Your task to perform on an android device: Open privacy settings Image 0: 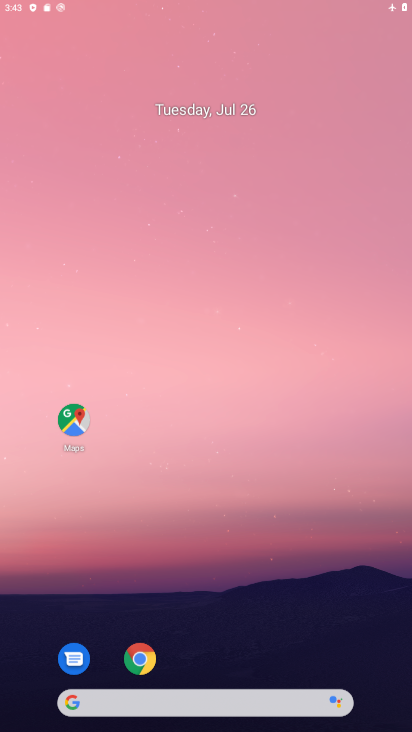
Step 0: click (158, 57)
Your task to perform on an android device: Open privacy settings Image 1: 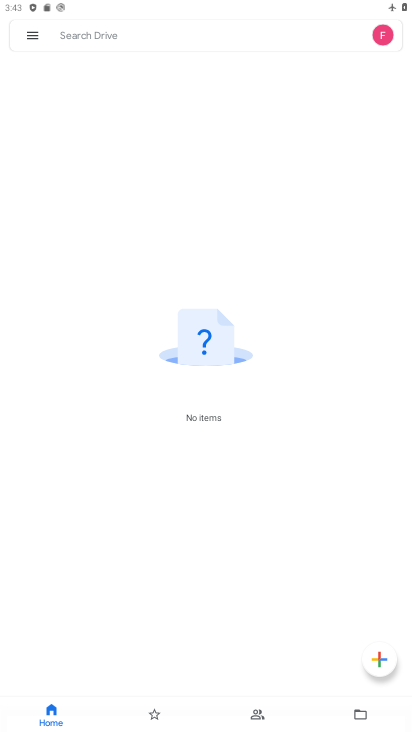
Step 1: press home button
Your task to perform on an android device: Open privacy settings Image 2: 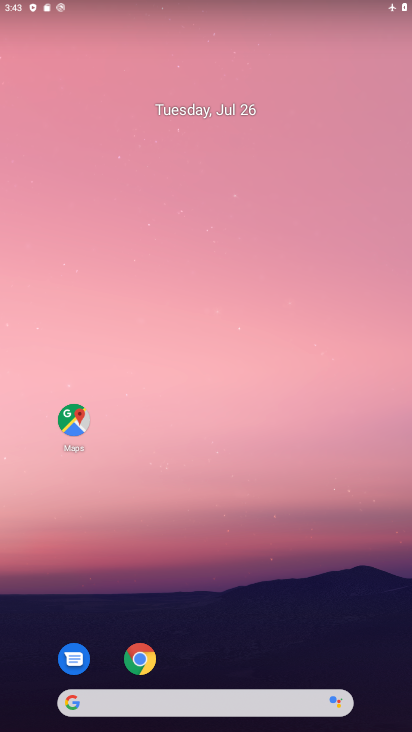
Step 2: drag from (270, 578) to (313, 6)
Your task to perform on an android device: Open privacy settings Image 3: 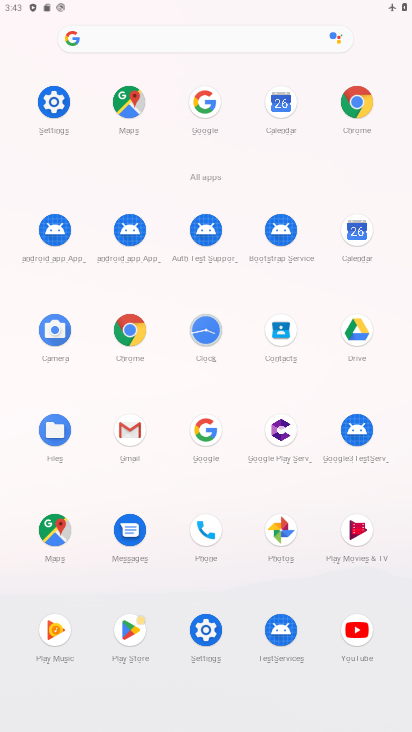
Step 3: click (63, 97)
Your task to perform on an android device: Open privacy settings Image 4: 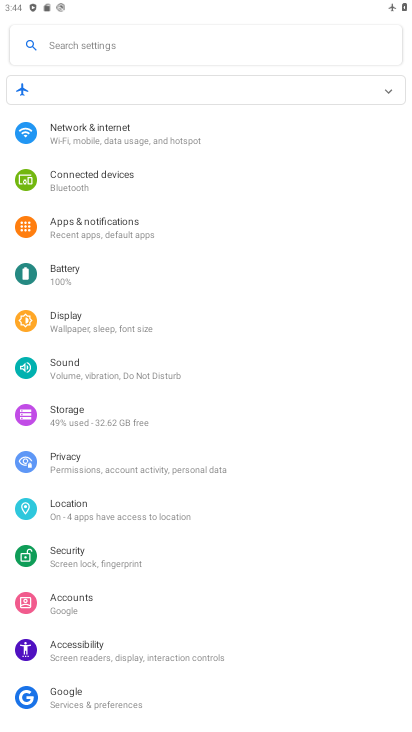
Step 4: click (105, 460)
Your task to perform on an android device: Open privacy settings Image 5: 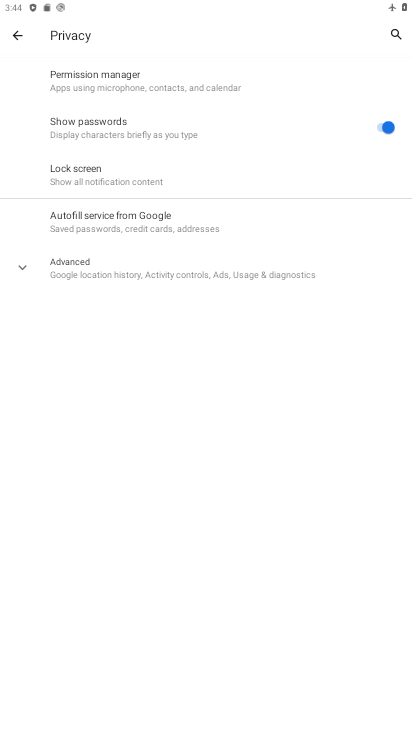
Step 5: task complete